Your task to perform on an android device: Open Google Maps Image 0: 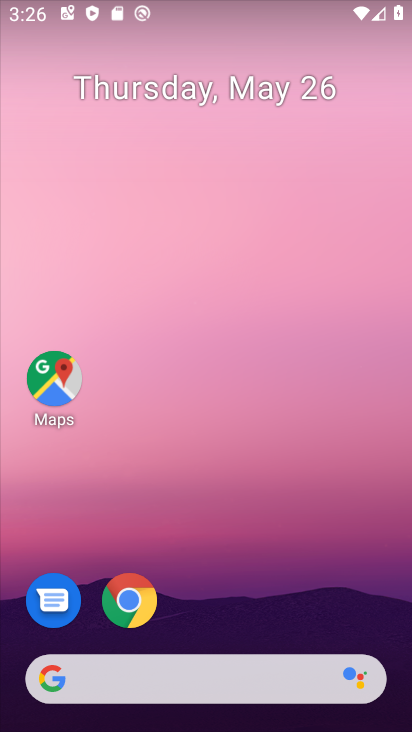
Step 0: drag from (300, 617) to (215, 32)
Your task to perform on an android device: Open Google Maps Image 1: 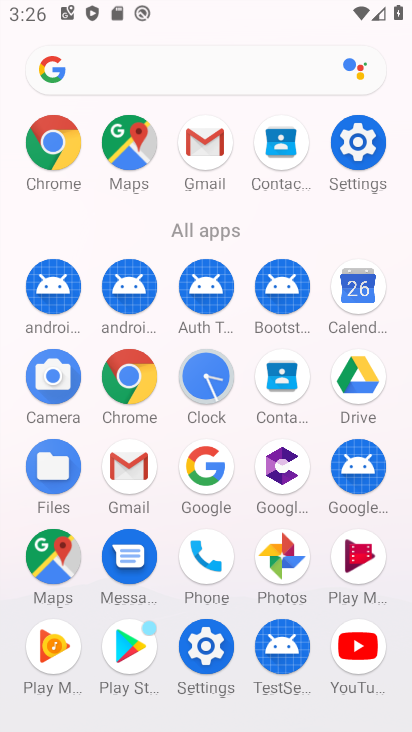
Step 1: drag from (21, 616) to (27, 313)
Your task to perform on an android device: Open Google Maps Image 2: 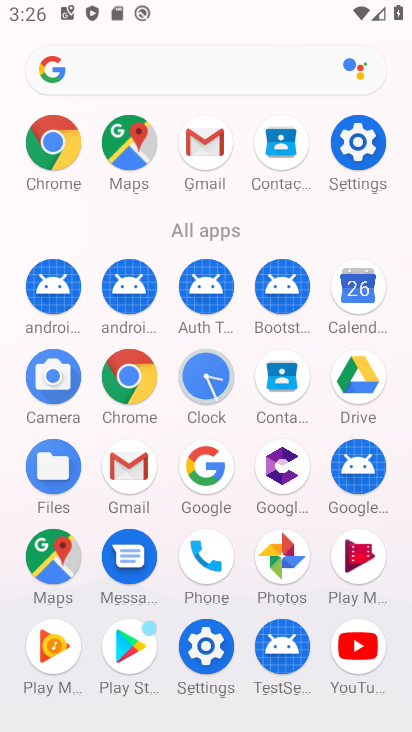
Step 2: click (52, 553)
Your task to perform on an android device: Open Google Maps Image 3: 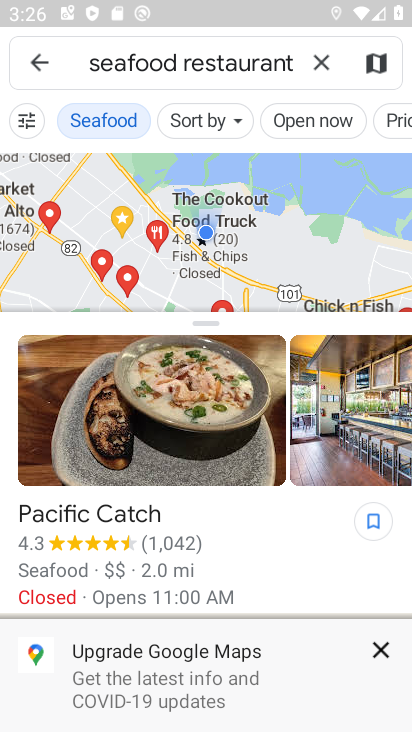
Step 3: click (384, 647)
Your task to perform on an android device: Open Google Maps Image 4: 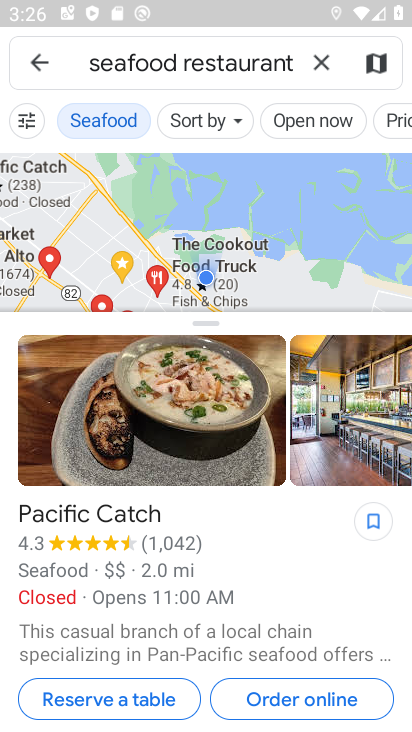
Step 4: click (32, 55)
Your task to perform on an android device: Open Google Maps Image 5: 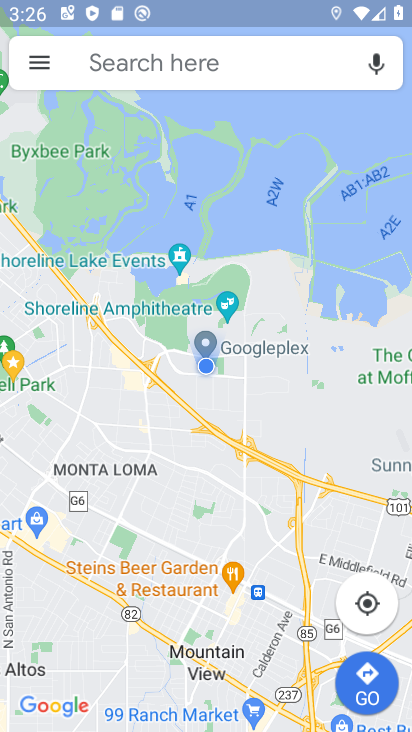
Step 5: task complete